Your task to perform on an android device: Open Google Maps Image 0: 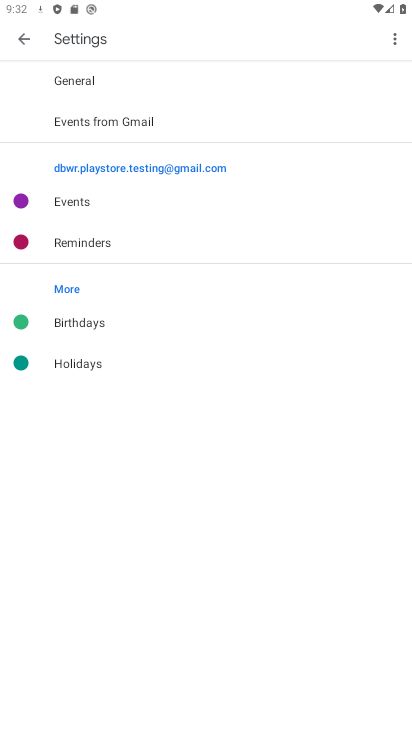
Step 0: press home button
Your task to perform on an android device: Open Google Maps Image 1: 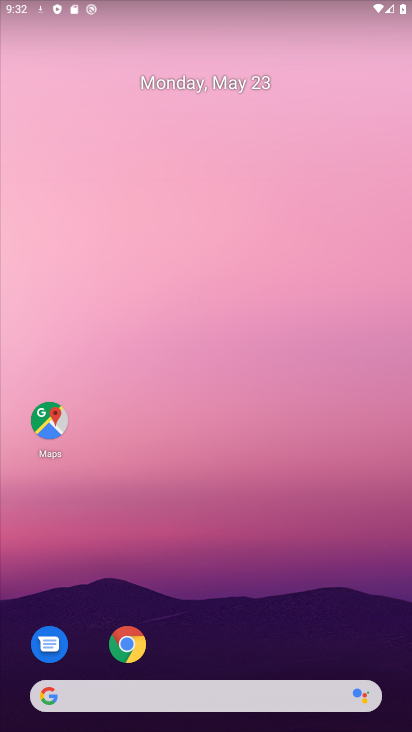
Step 1: drag from (303, 715) to (239, 204)
Your task to perform on an android device: Open Google Maps Image 2: 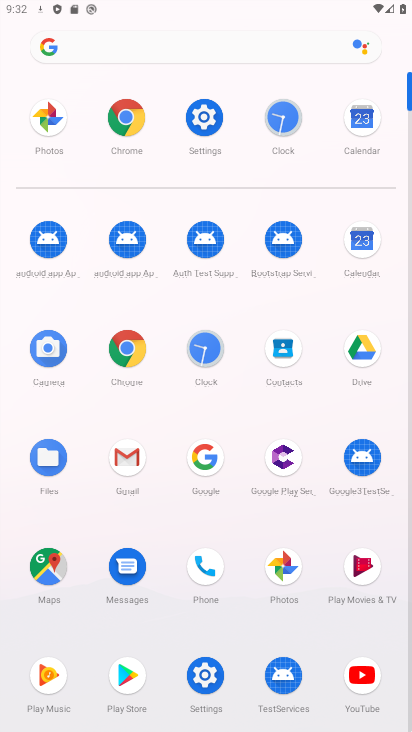
Step 2: click (52, 556)
Your task to perform on an android device: Open Google Maps Image 3: 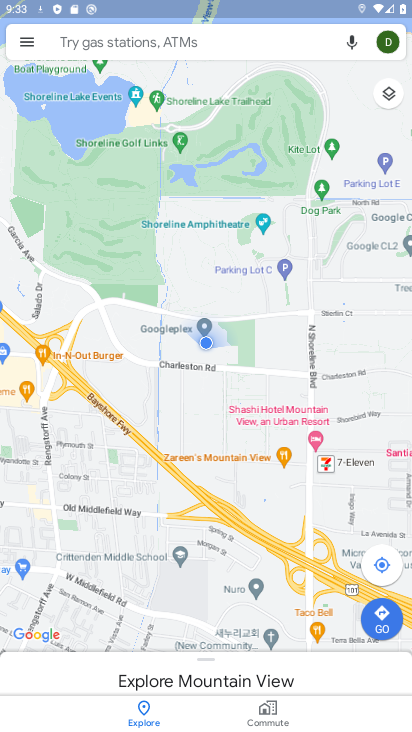
Step 3: task complete